Your task to perform on an android device: Open privacy settings Image 0: 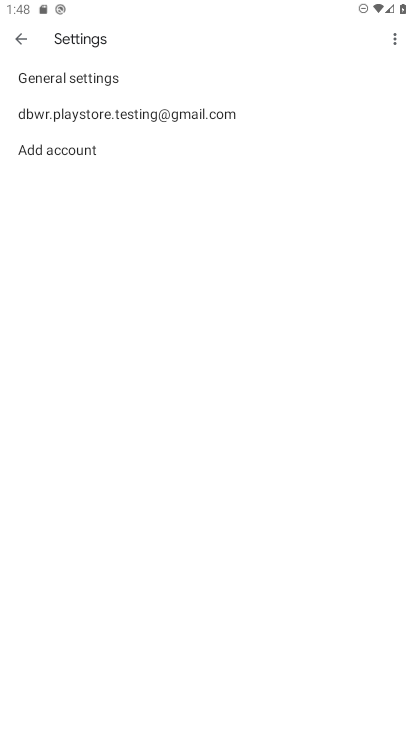
Step 0: press home button
Your task to perform on an android device: Open privacy settings Image 1: 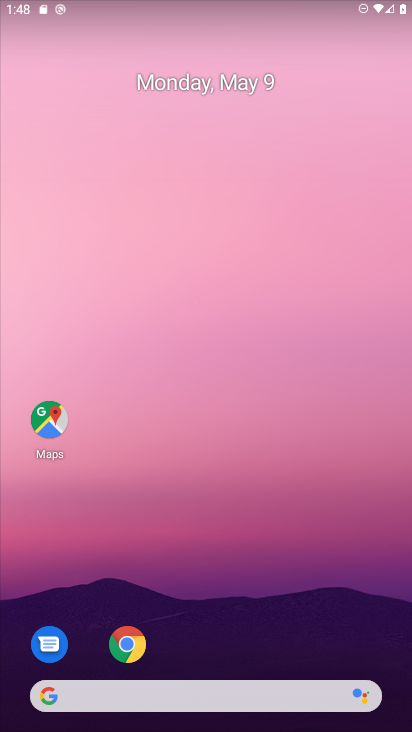
Step 1: drag from (186, 423) to (195, 127)
Your task to perform on an android device: Open privacy settings Image 2: 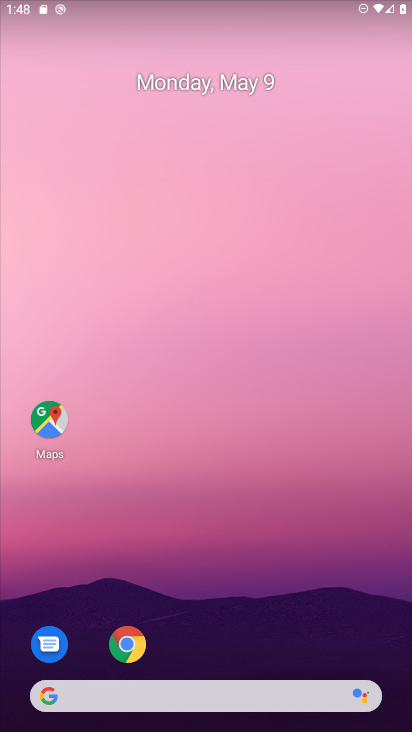
Step 2: drag from (296, 243) to (306, 74)
Your task to perform on an android device: Open privacy settings Image 3: 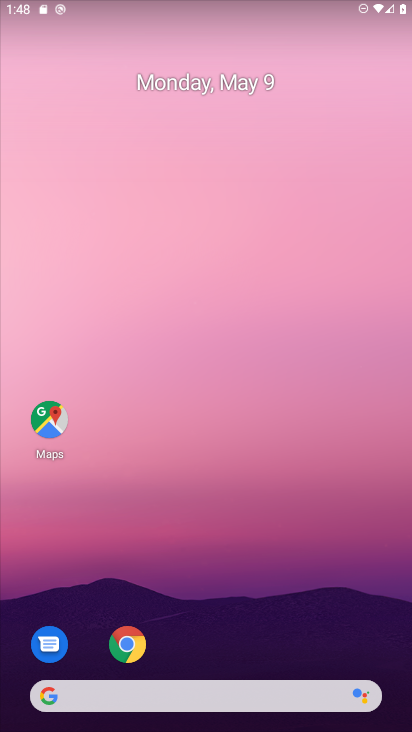
Step 3: drag from (258, 342) to (262, 165)
Your task to perform on an android device: Open privacy settings Image 4: 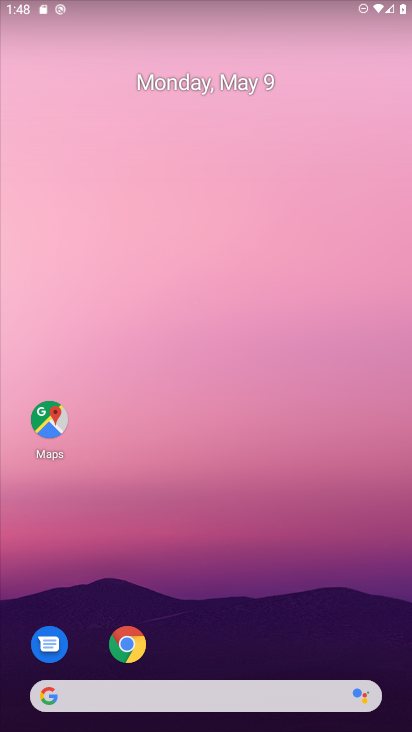
Step 4: drag from (251, 409) to (252, 4)
Your task to perform on an android device: Open privacy settings Image 5: 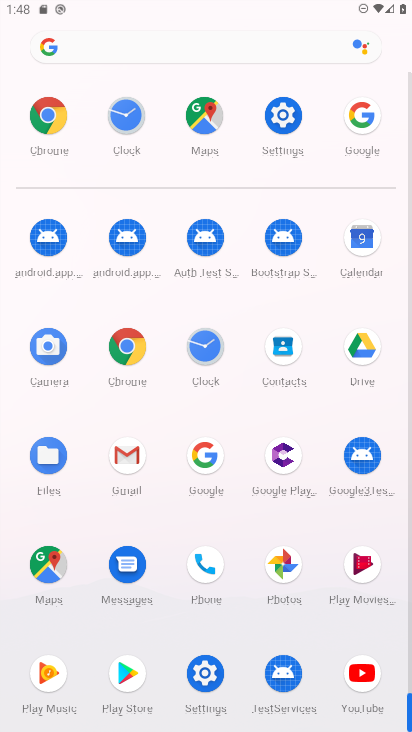
Step 5: click (203, 678)
Your task to perform on an android device: Open privacy settings Image 6: 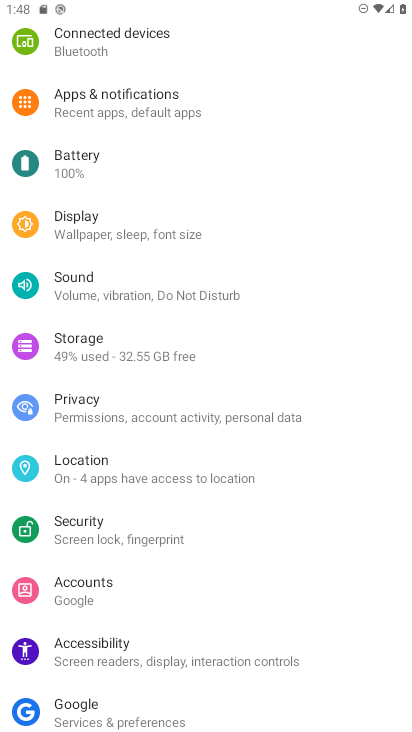
Step 6: click (214, 417)
Your task to perform on an android device: Open privacy settings Image 7: 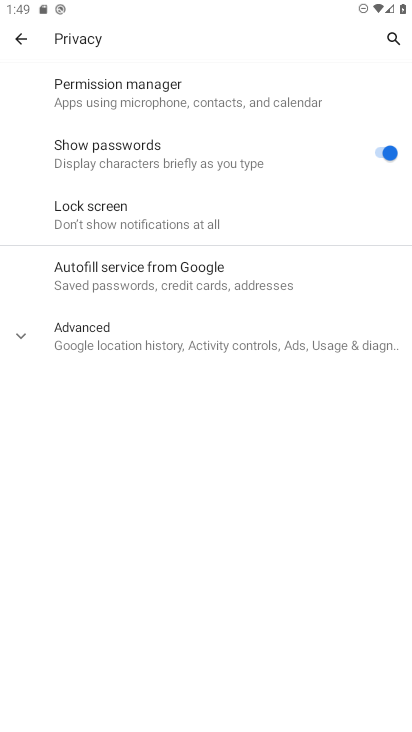
Step 7: task complete